Your task to perform on an android device: toggle location history Image 0: 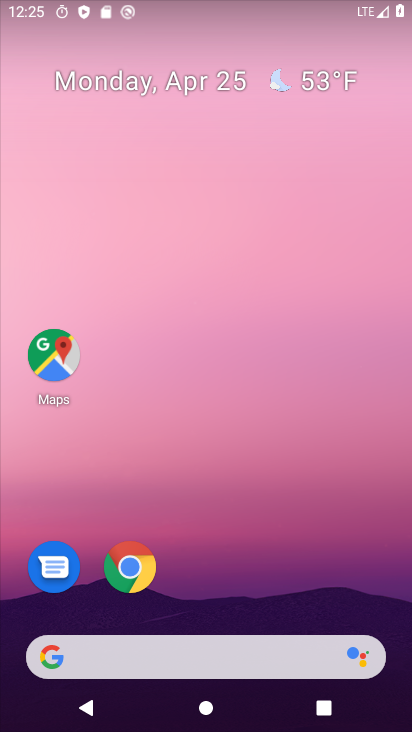
Step 0: drag from (273, 558) to (277, 79)
Your task to perform on an android device: toggle location history Image 1: 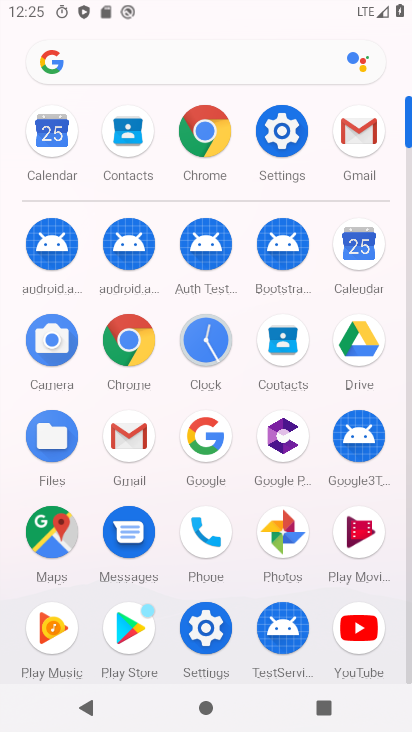
Step 1: click (275, 137)
Your task to perform on an android device: toggle location history Image 2: 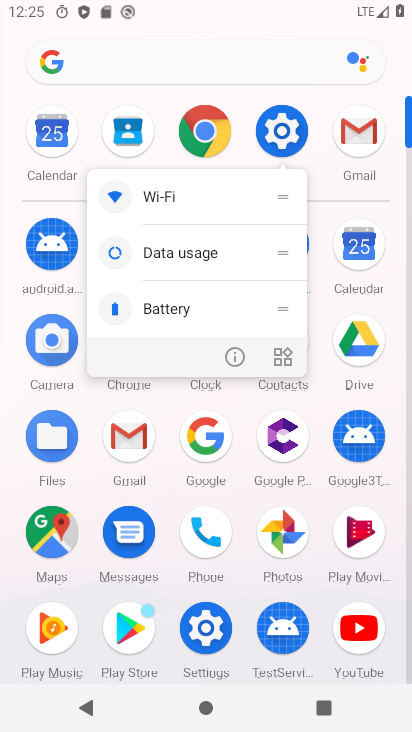
Step 2: click (275, 137)
Your task to perform on an android device: toggle location history Image 3: 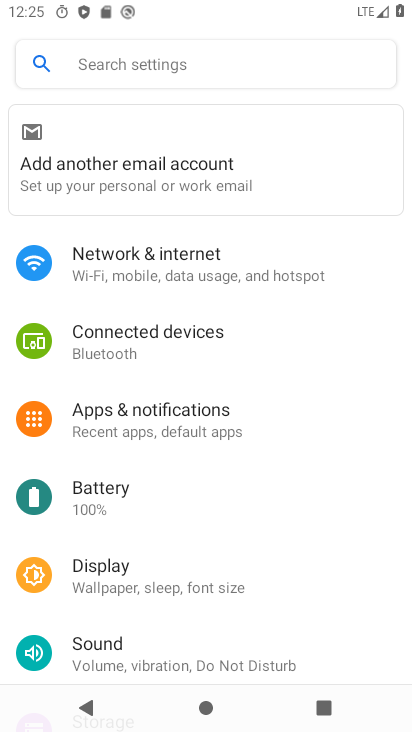
Step 3: drag from (241, 648) to (258, 127)
Your task to perform on an android device: toggle location history Image 4: 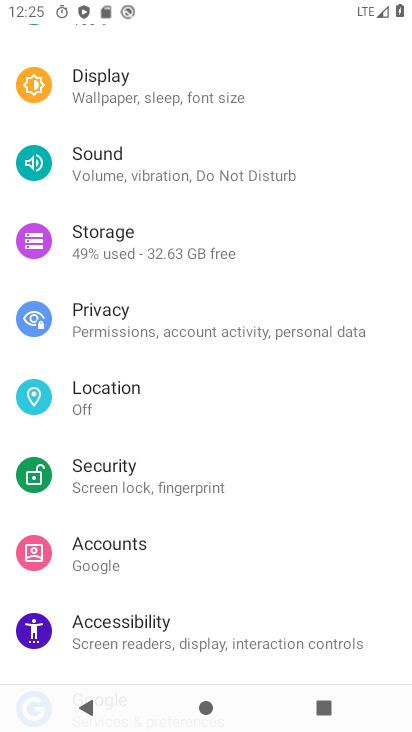
Step 4: click (184, 391)
Your task to perform on an android device: toggle location history Image 5: 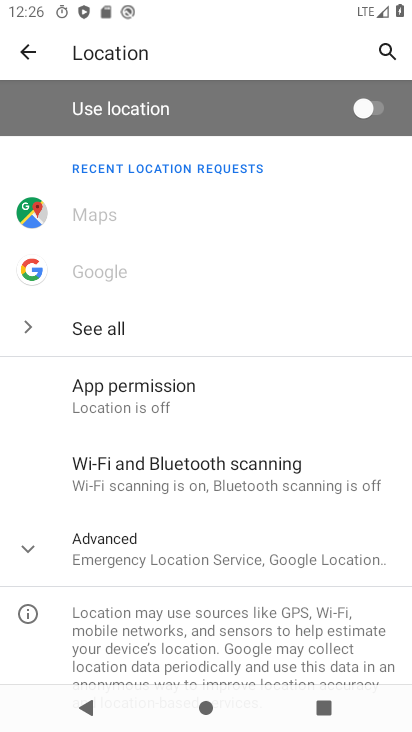
Step 5: click (373, 100)
Your task to perform on an android device: toggle location history Image 6: 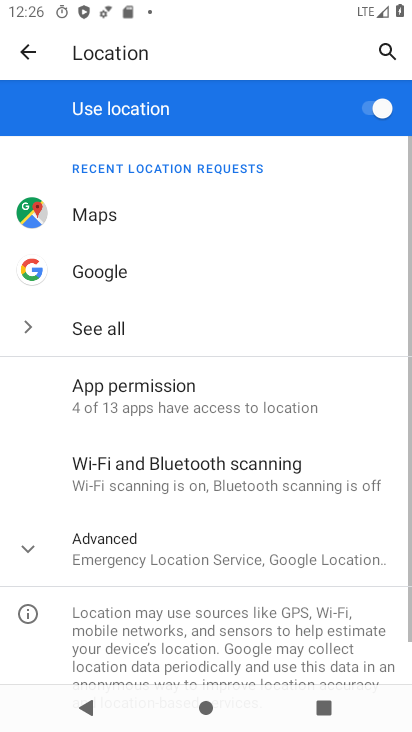
Step 6: task complete